Your task to perform on an android device: toggle translation in the chrome app Image 0: 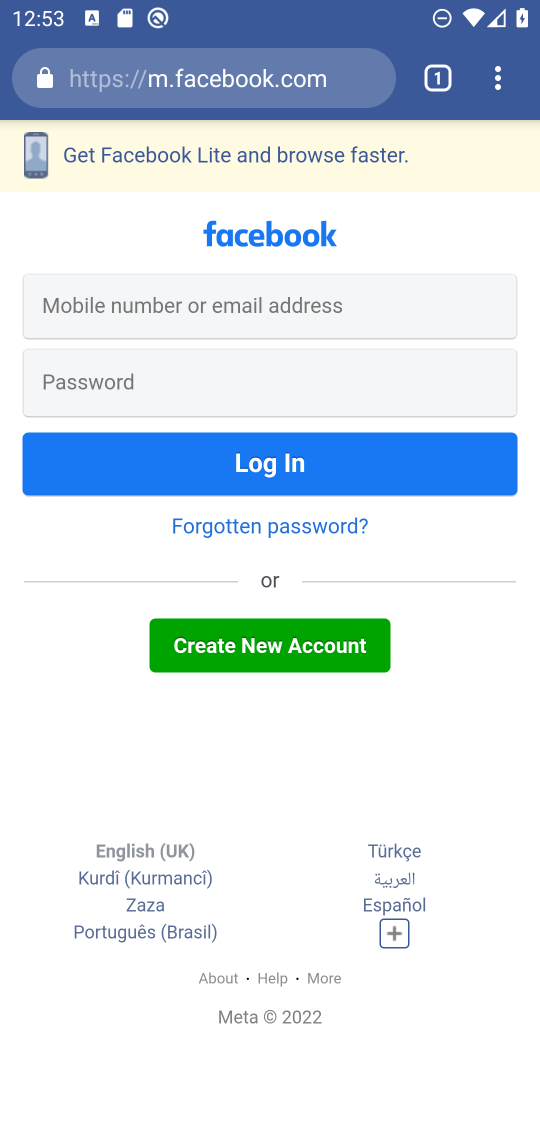
Step 0: click (483, 81)
Your task to perform on an android device: toggle translation in the chrome app Image 1: 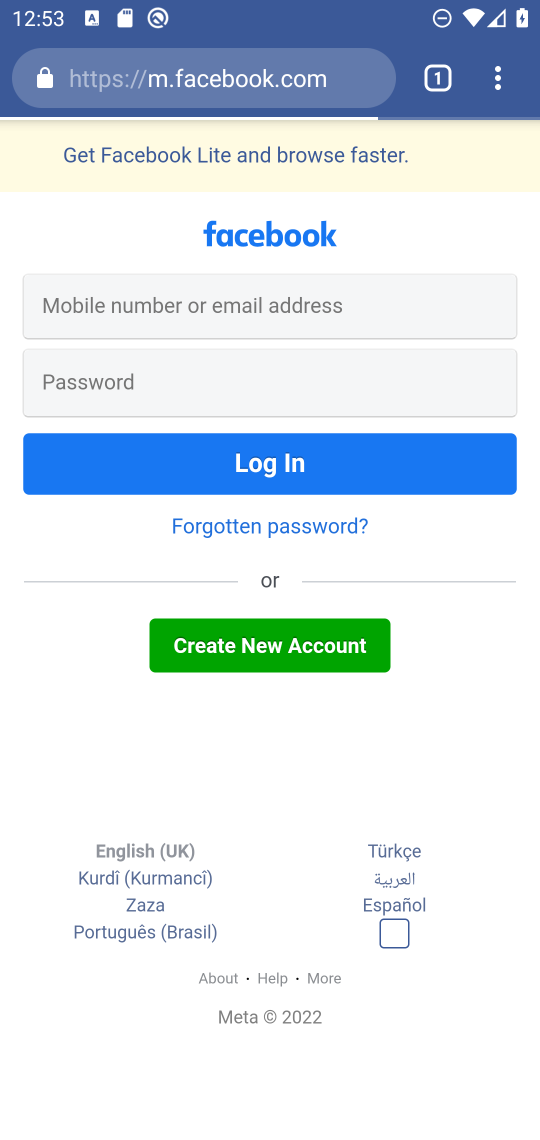
Step 1: click (501, 75)
Your task to perform on an android device: toggle translation in the chrome app Image 2: 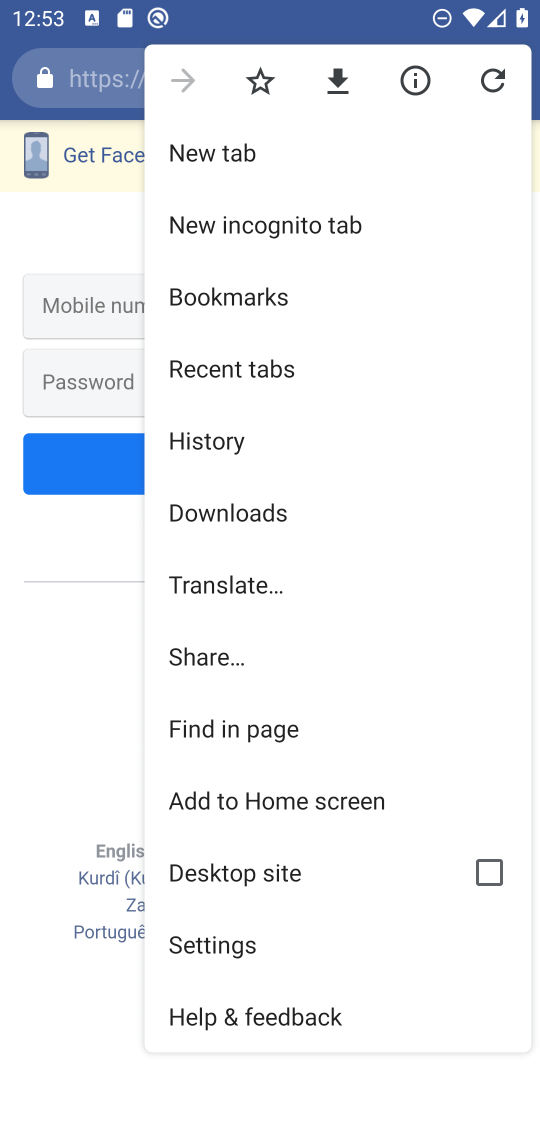
Step 2: click (251, 941)
Your task to perform on an android device: toggle translation in the chrome app Image 3: 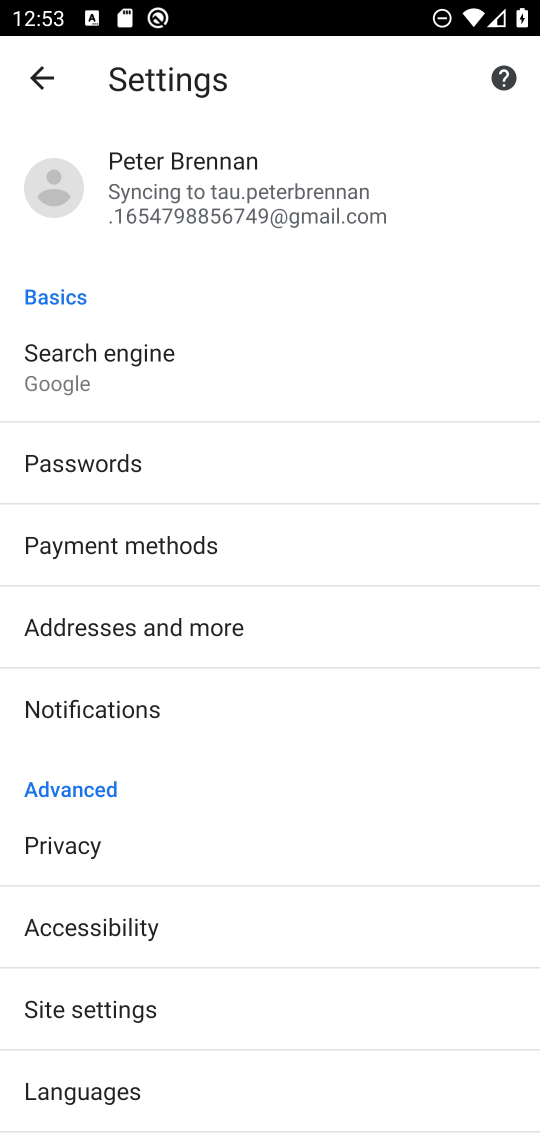
Step 3: click (198, 1096)
Your task to perform on an android device: toggle translation in the chrome app Image 4: 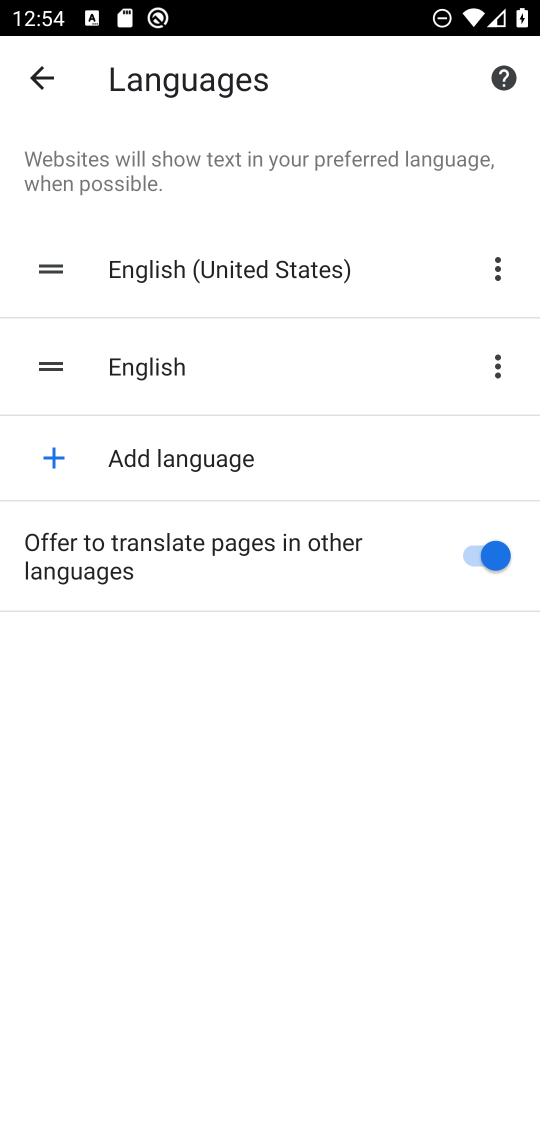
Step 4: click (478, 557)
Your task to perform on an android device: toggle translation in the chrome app Image 5: 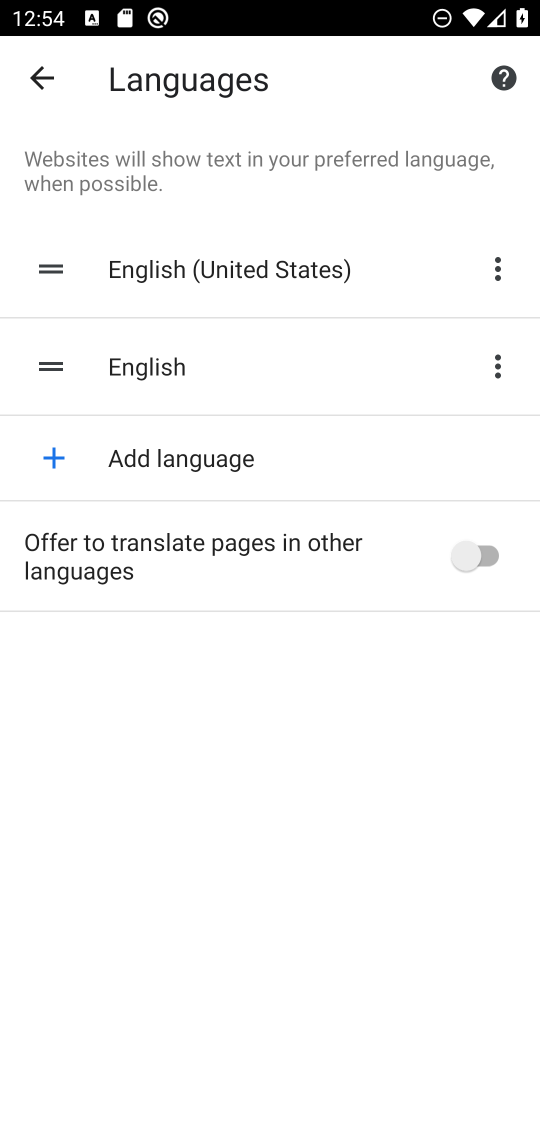
Step 5: task complete